Your task to perform on an android device: What's the news in Japan? Image 0: 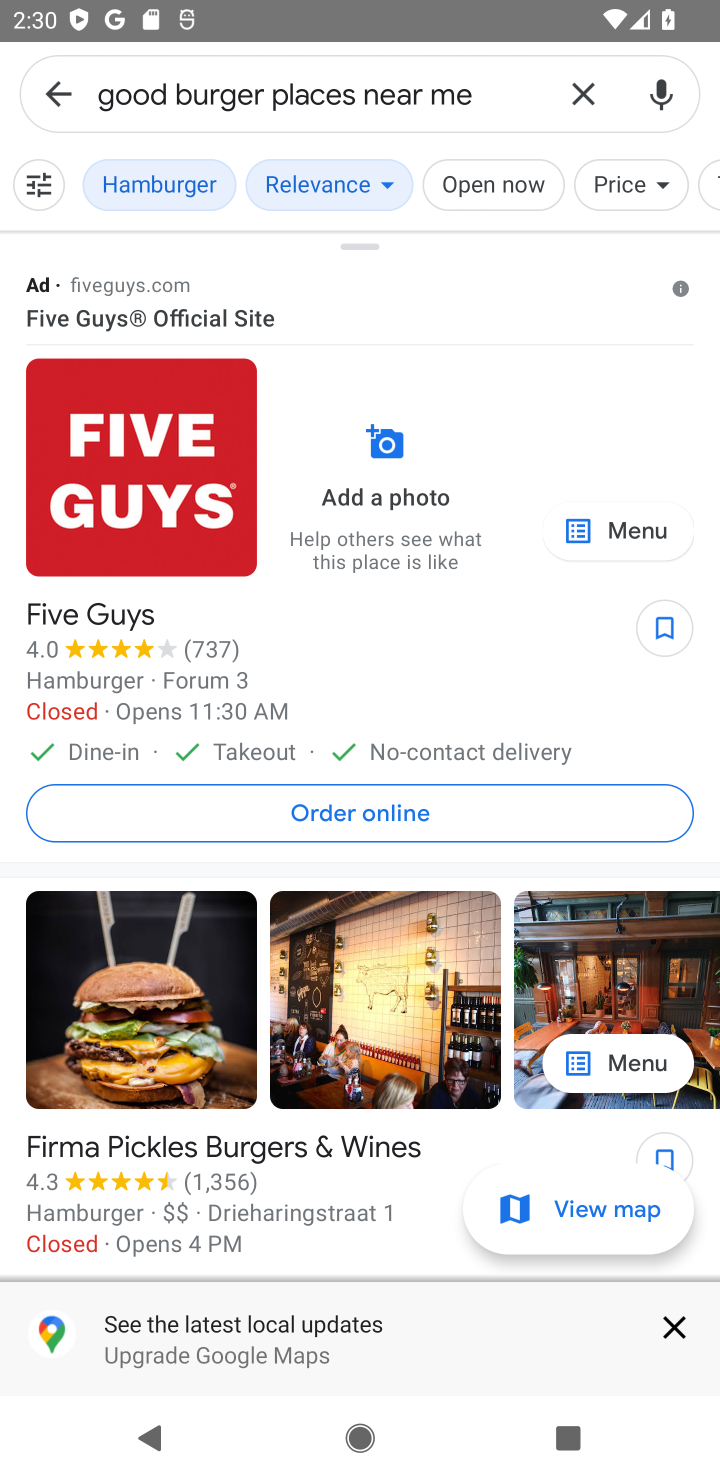
Step 0: press home button
Your task to perform on an android device: What's the news in Japan? Image 1: 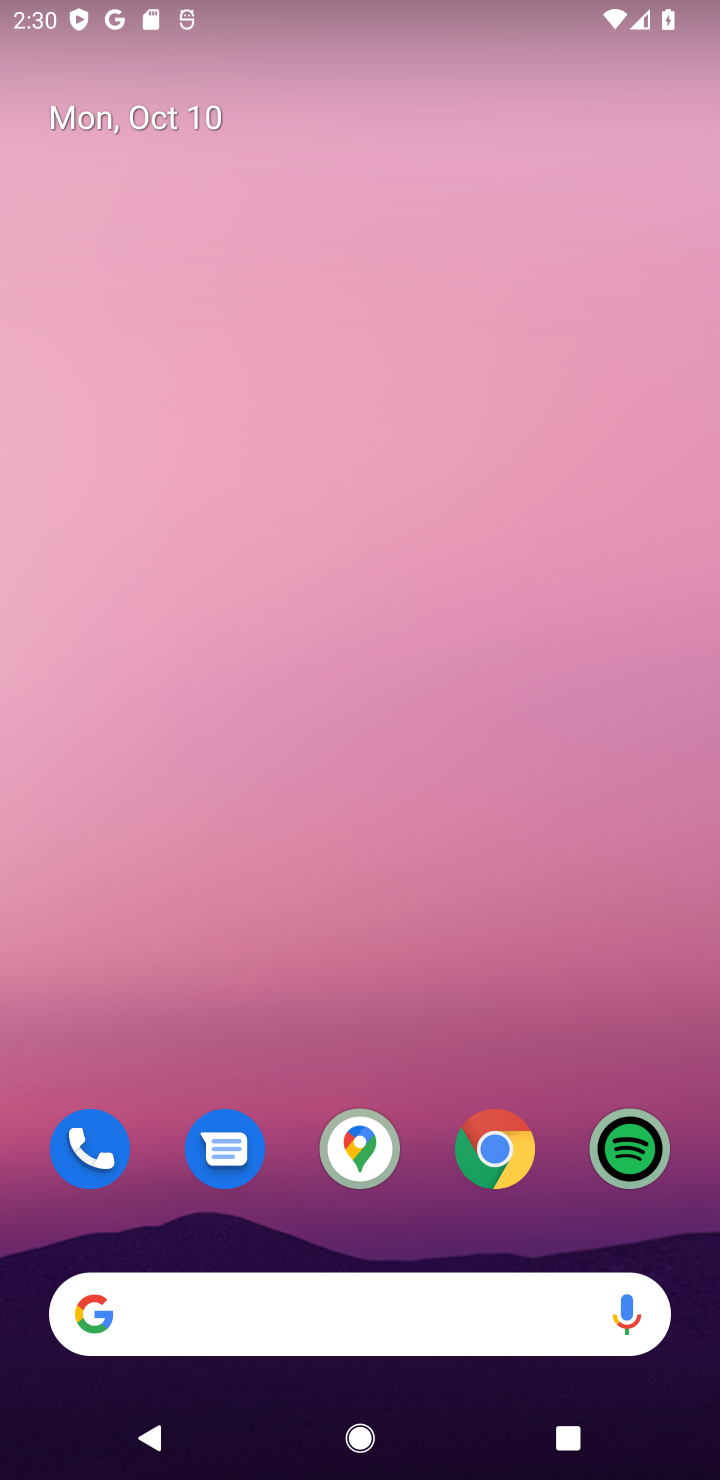
Step 1: click (392, 1329)
Your task to perform on an android device: What's the news in Japan? Image 2: 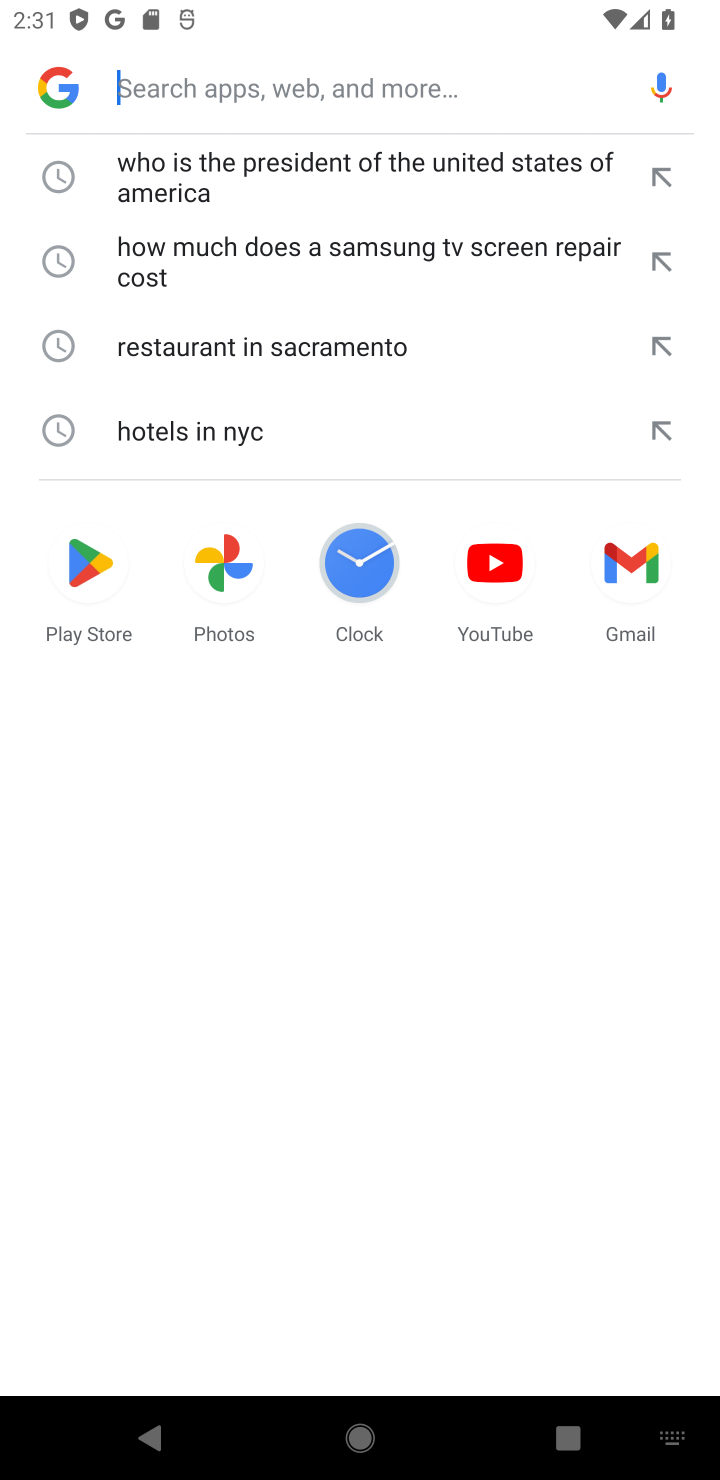
Step 2: type "What's the news in Japan"
Your task to perform on an android device: What's the news in Japan? Image 3: 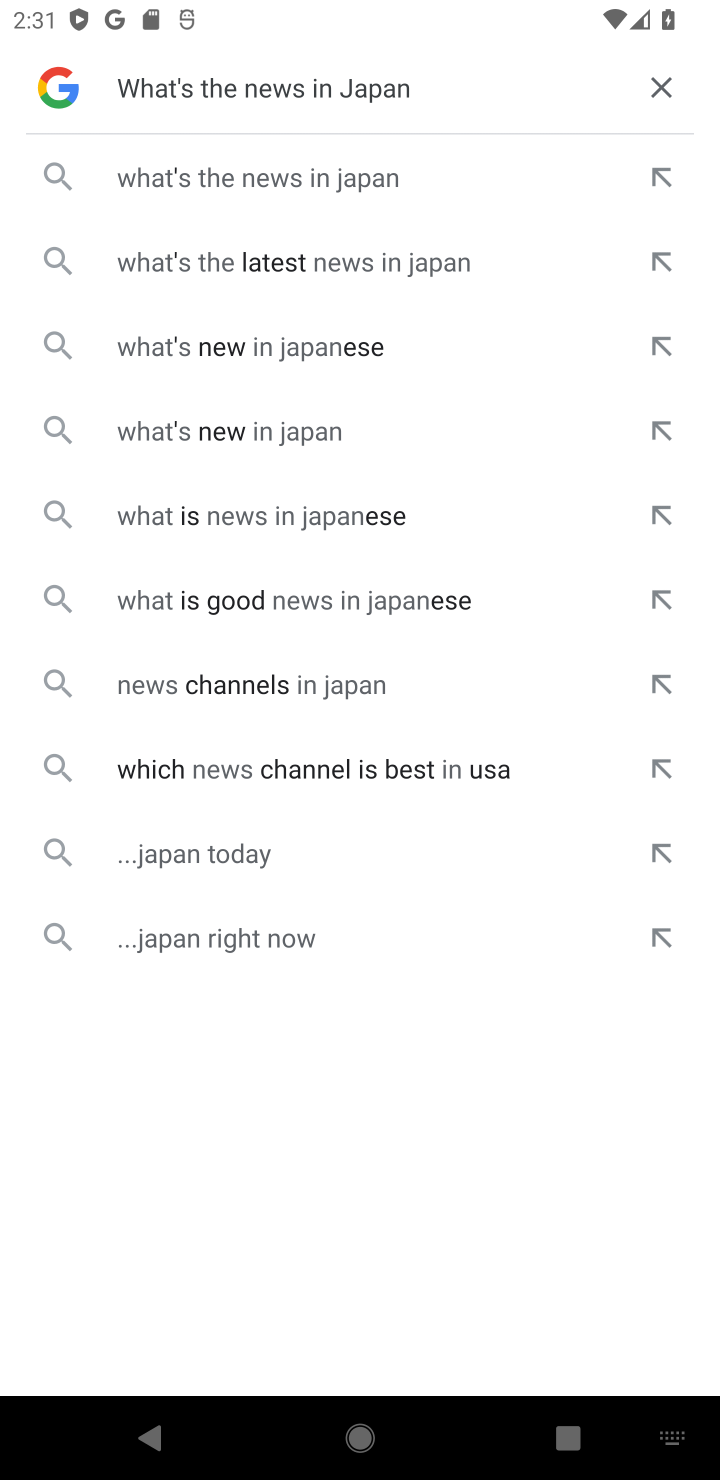
Step 3: click (354, 156)
Your task to perform on an android device: What's the news in Japan? Image 4: 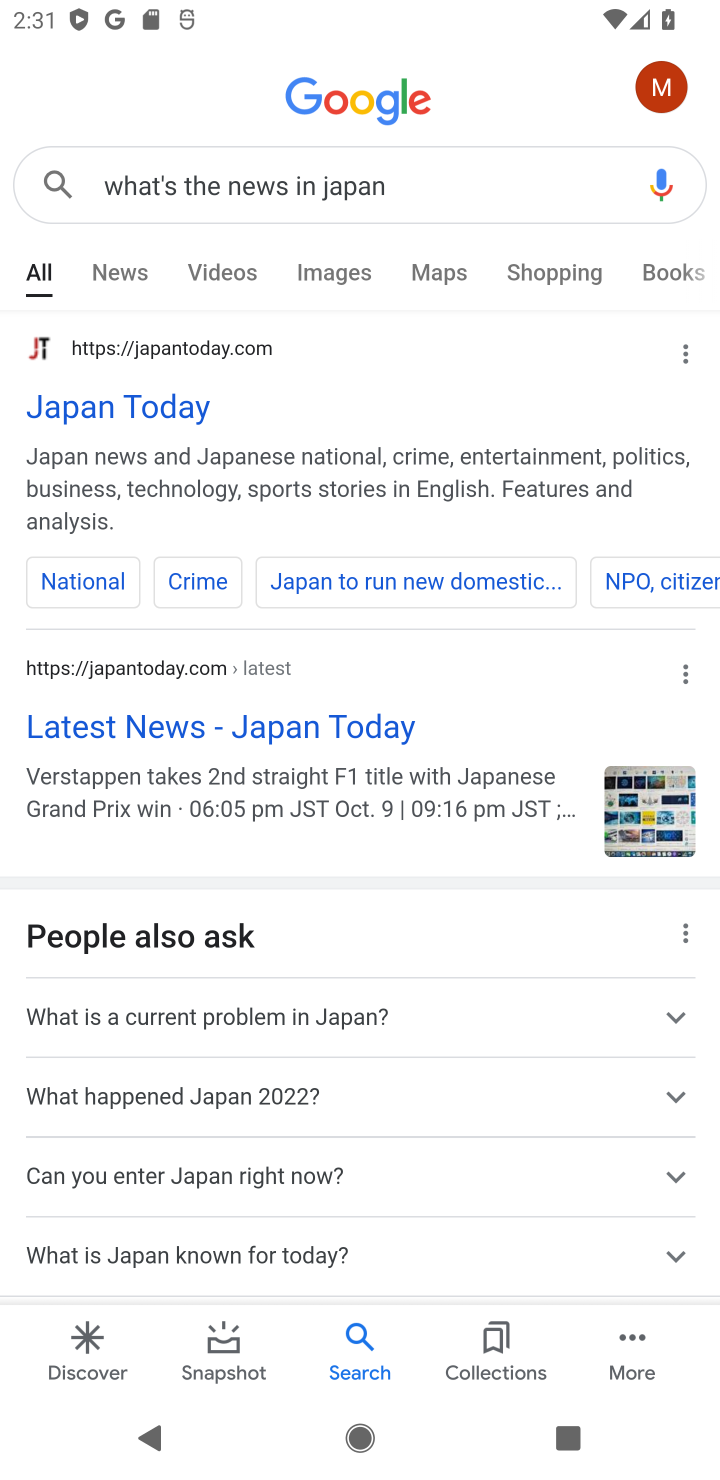
Step 4: task complete